Your task to perform on an android device: turn notification dots off Image 0: 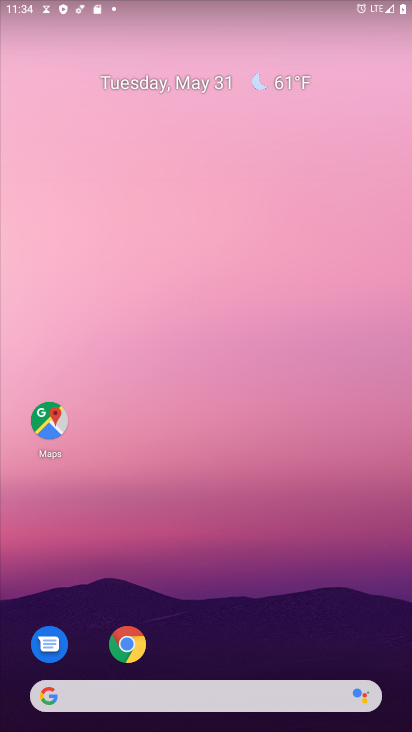
Step 0: drag from (229, 611) to (320, 68)
Your task to perform on an android device: turn notification dots off Image 1: 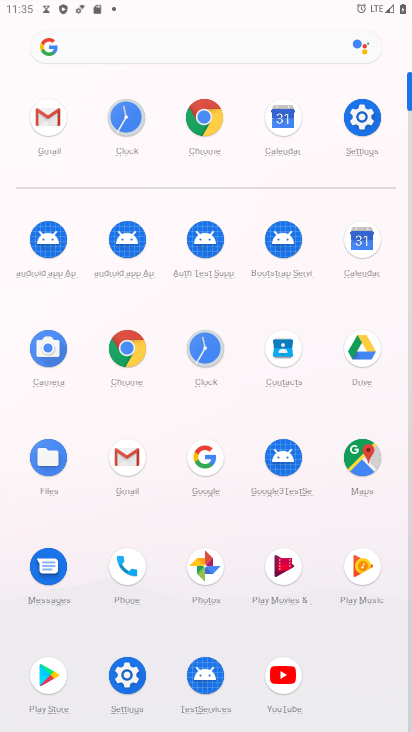
Step 1: click (371, 123)
Your task to perform on an android device: turn notification dots off Image 2: 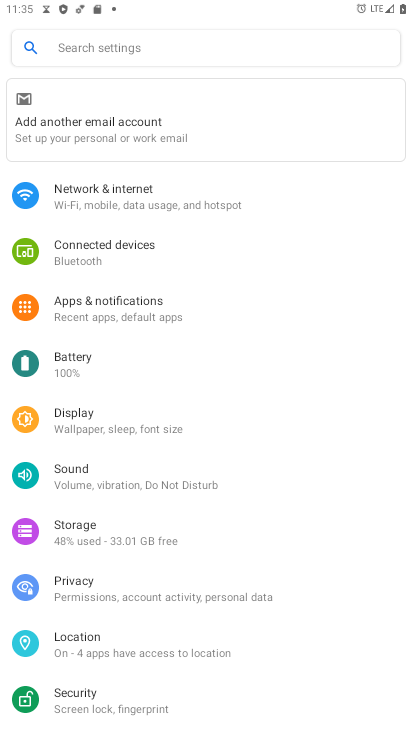
Step 2: click (190, 302)
Your task to perform on an android device: turn notification dots off Image 3: 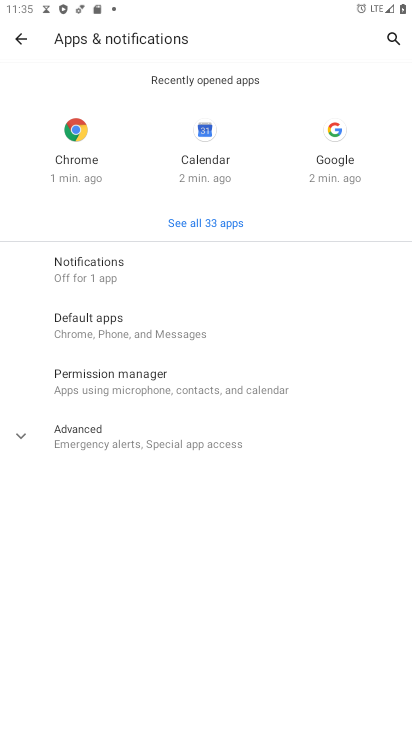
Step 3: click (107, 266)
Your task to perform on an android device: turn notification dots off Image 4: 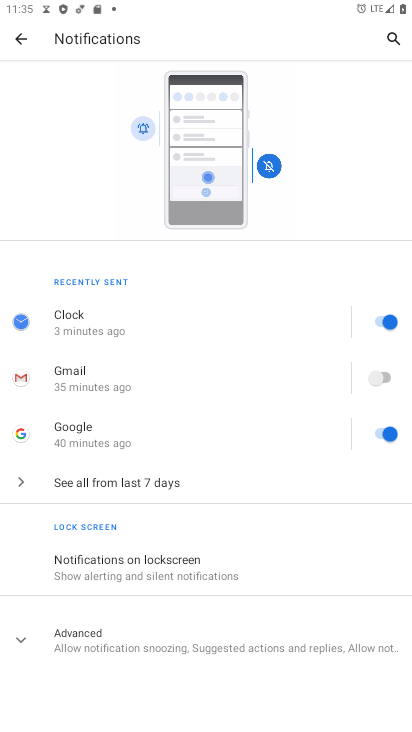
Step 4: click (130, 644)
Your task to perform on an android device: turn notification dots off Image 5: 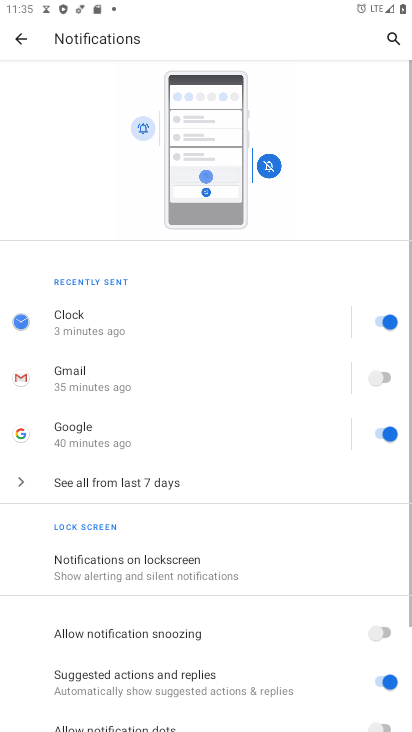
Step 5: task complete